Your task to perform on an android device: set default search engine in the chrome app Image 0: 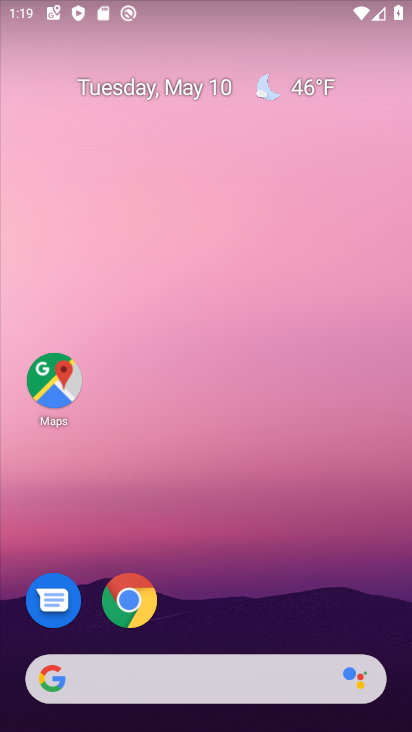
Step 0: press home button
Your task to perform on an android device: set default search engine in the chrome app Image 1: 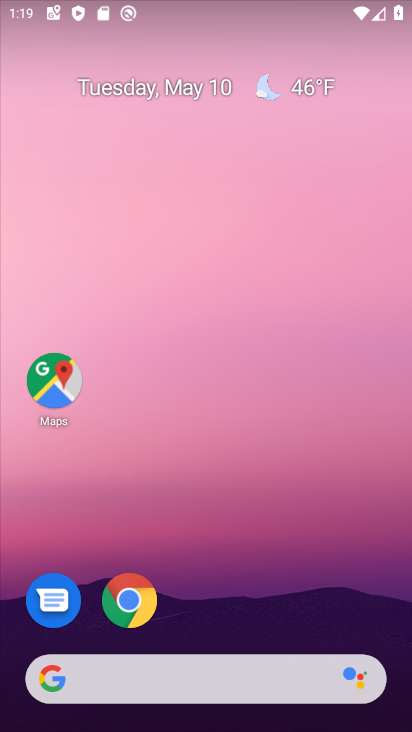
Step 1: click (135, 610)
Your task to perform on an android device: set default search engine in the chrome app Image 2: 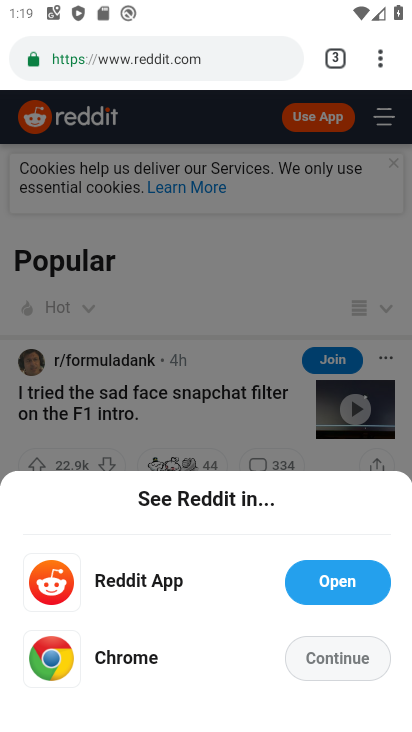
Step 2: drag from (380, 64) to (198, 631)
Your task to perform on an android device: set default search engine in the chrome app Image 3: 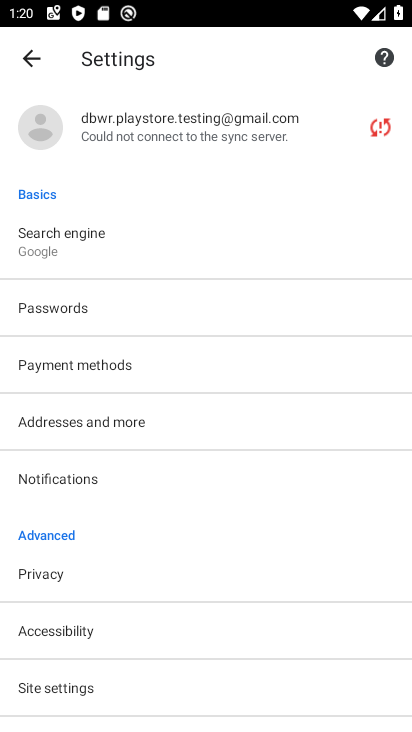
Step 3: click (74, 255)
Your task to perform on an android device: set default search engine in the chrome app Image 4: 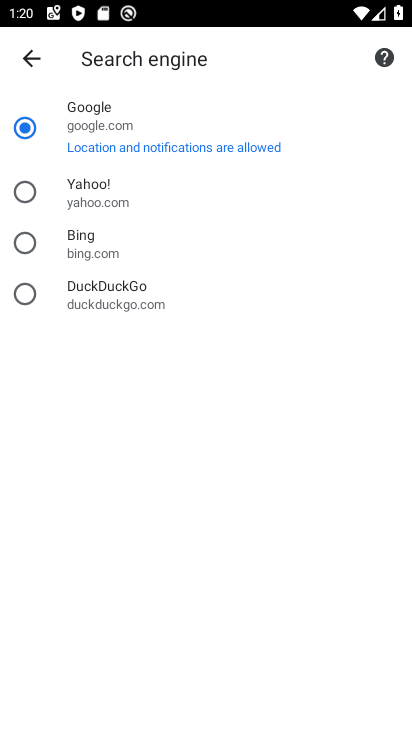
Step 4: click (28, 193)
Your task to perform on an android device: set default search engine in the chrome app Image 5: 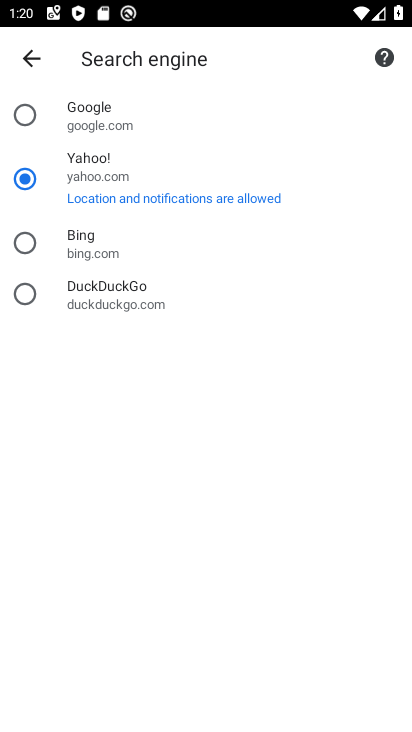
Step 5: task complete